Your task to perform on an android device: open a bookmark in the chrome app Image 0: 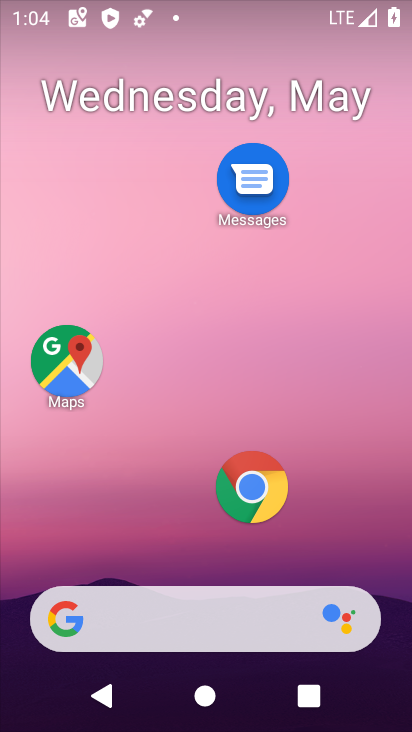
Step 0: click (267, 490)
Your task to perform on an android device: open a bookmark in the chrome app Image 1: 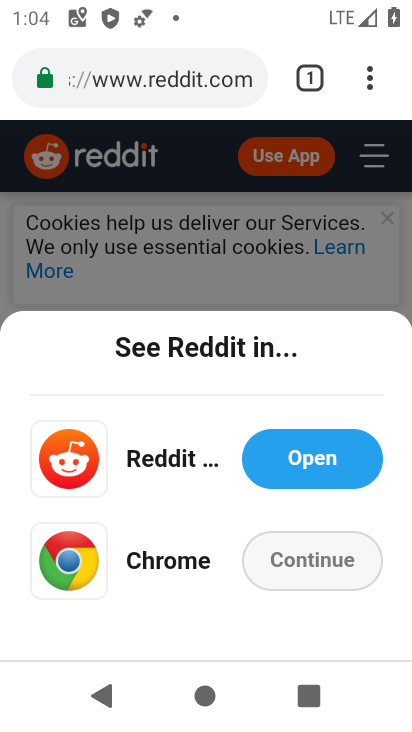
Step 1: click (370, 71)
Your task to perform on an android device: open a bookmark in the chrome app Image 2: 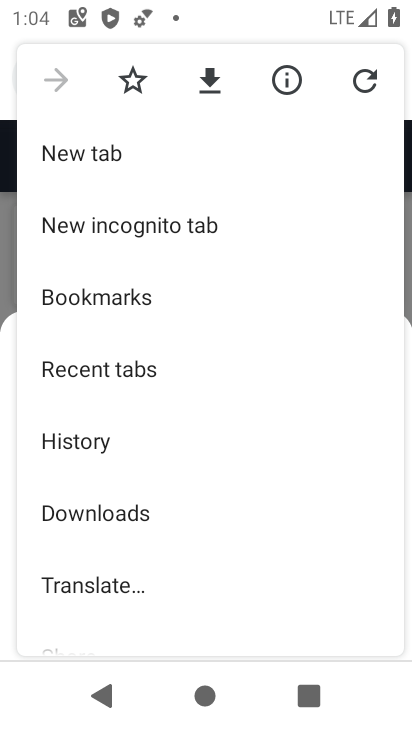
Step 2: click (148, 297)
Your task to perform on an android device: open a bookmark in the chrome app Image 3: 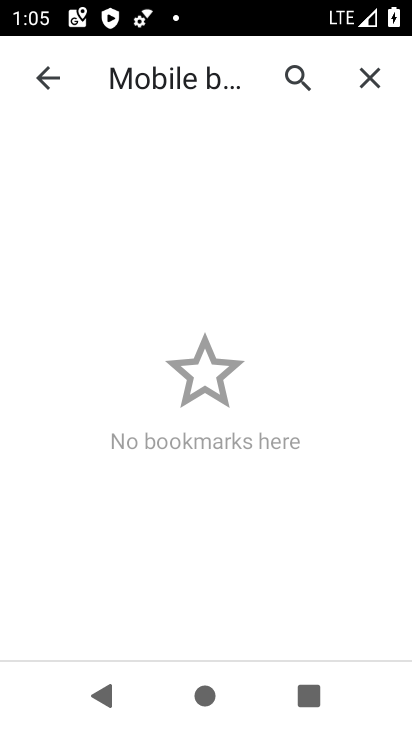
Step 3: click (374, 70)
Your task to perform on an android device: open a bookmark in the chrome app Image 4: 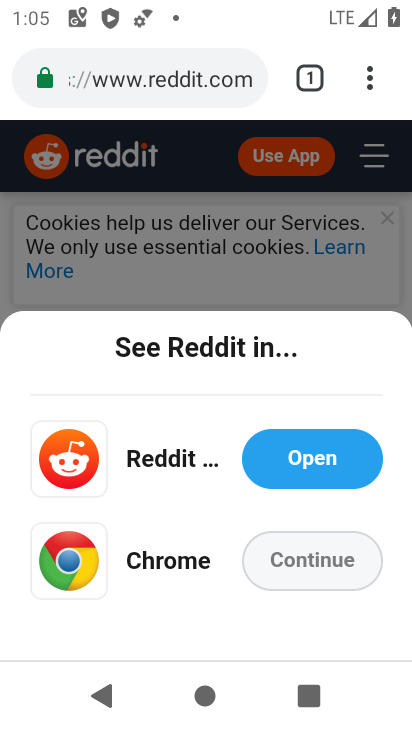
Step 4: task complete